Your task to perform on an android device: Go to Wikipedia Image 0: 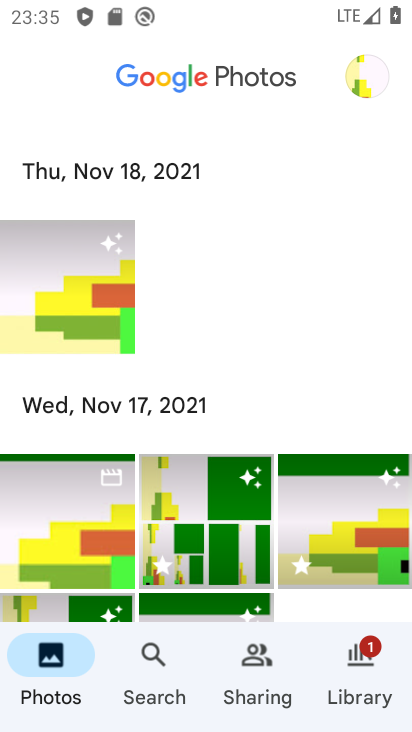
Step 0: press home button
Your task to perform on an android device: Go to Wikipedia Image 1: 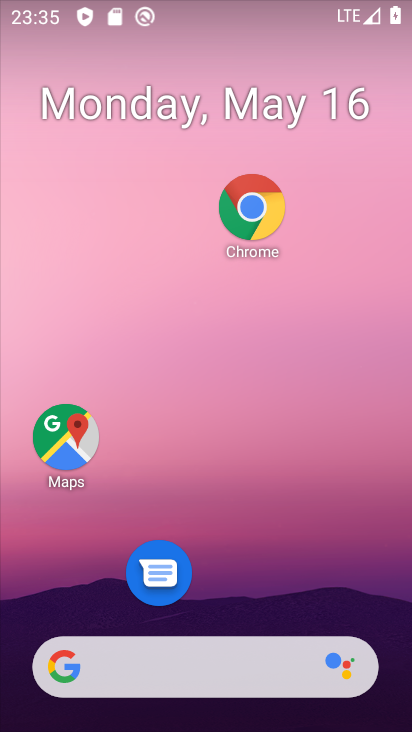
Step 1: drag from (281, 620) to (324, 32)
Your task to perform on an android device: Go to Wikipedia Image 2: 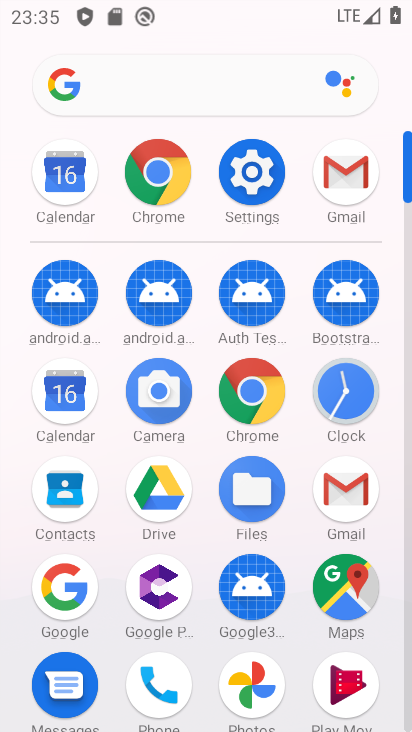
Step 2: click (266, 400)
Your task to perform on an android device: Go to Wikipedia Image 3: 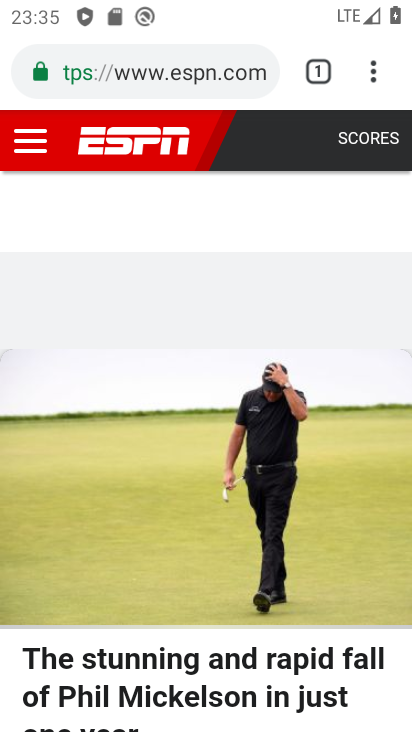
Step 3: click (230, 74)
Your task to perform on an android device: Go to Wikipedia Image 4: 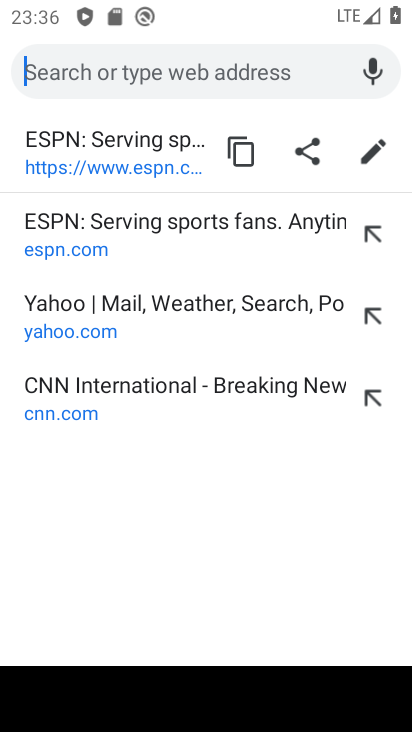
Step 4: type "wikipedia"
Your task to perform on an android device: Go to Wikipedia Image 5: 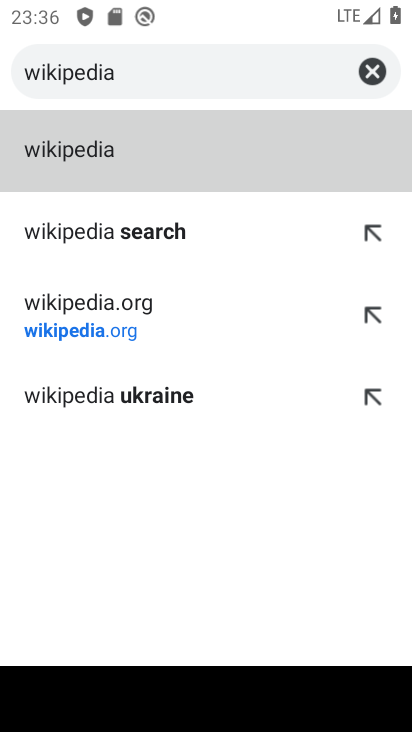
Step 5: click (135, 131)
Your task to perform on an android device: Go to Wikipedia Image 6: 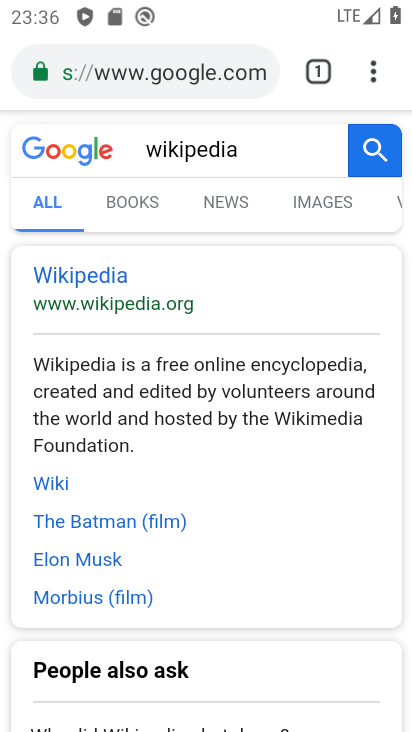
Step 6: task complete